Your task to perform on an android device: Go to network settings Image 0: 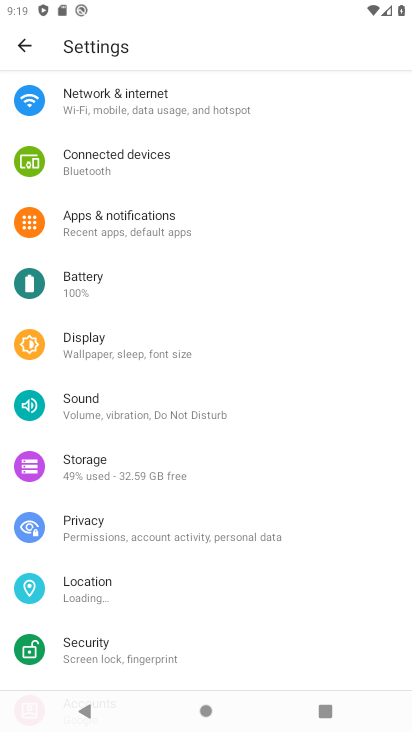
Step 0: click (178, 101)
Your task to perform on an android device: Go to network settings Image 1: 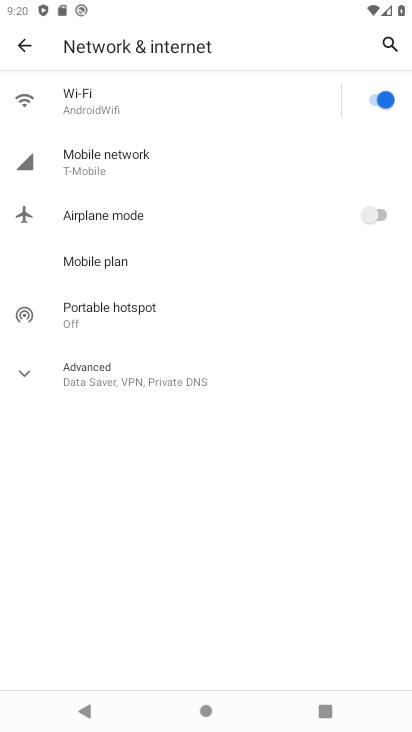
Step 1: task complete